Your task to perform on an android device: open chrome privacy settings Image 0: 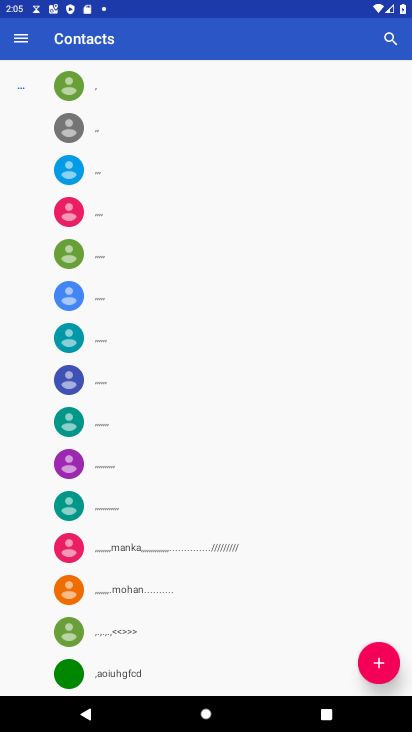
Step 0: press home button
Your task to perform on an android device: open chrome privacy settings Image 1: 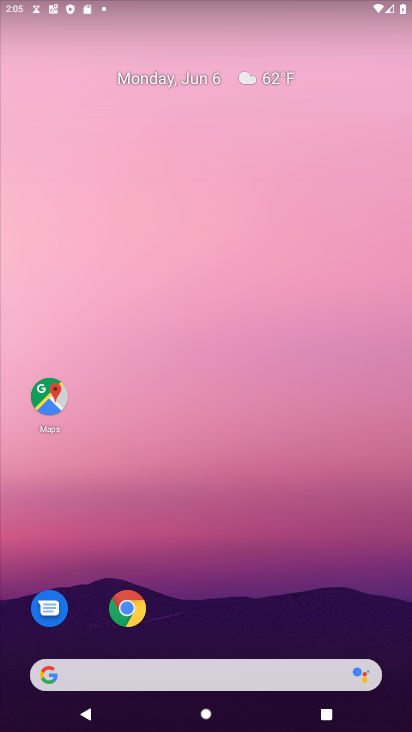
Step 1: drag from (275, 589) to (350, 71)
Your task to perform on an android device: open chrome privacy settings Image 2: 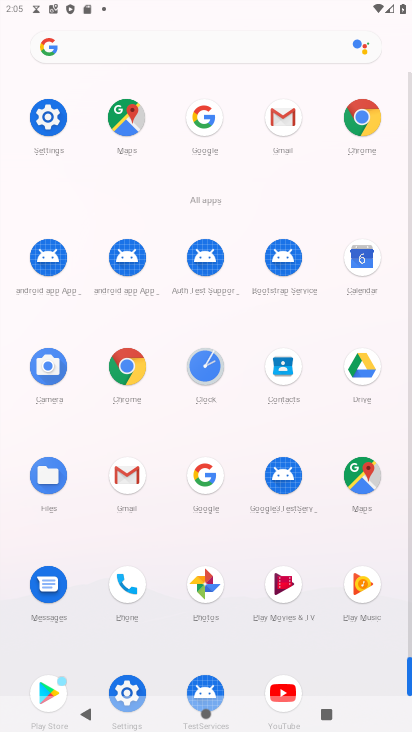
Step 2: click (112, 673)
Your task to perform on an android device: open chrome privacy settings Image 3: 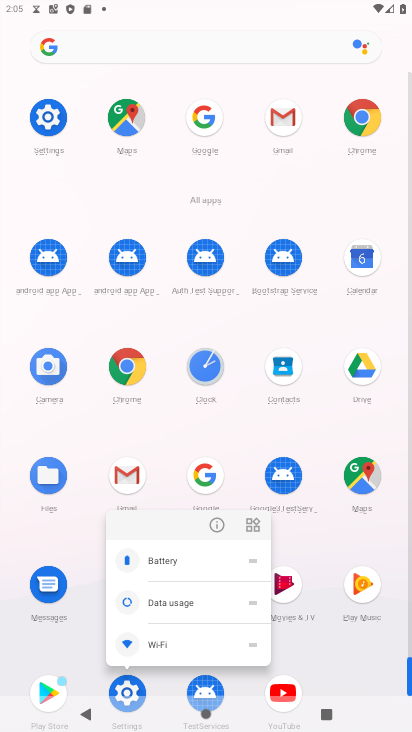
Step 3: click (124, 696)
Your task to perform on an android device: open chrome privacy settings Image 4: 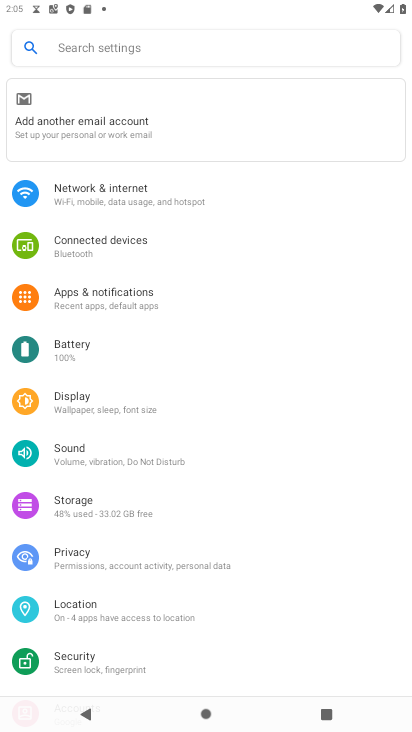
Step 4: click (85, 568)
Your task to perform on an android device: open chrome privacy settings Image 5: 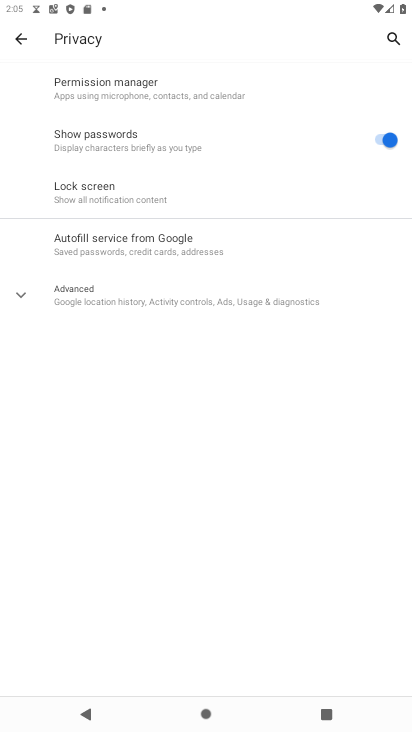
Step 5: task complete